Your task to perform on an android device: Open Yahoo.com Image 0: 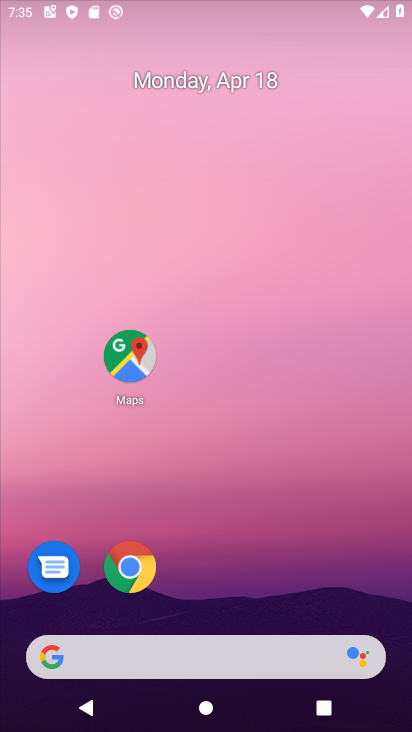
Step 0: click (256, 254)
Your task to perform on an android device: Open Yahoo.com Image 1: 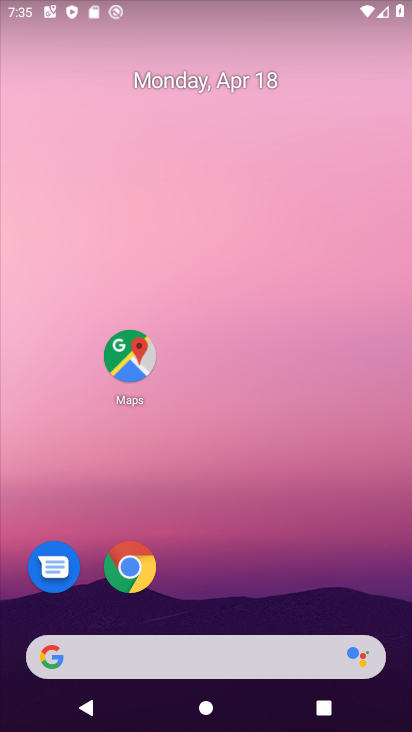
Step 1: click (139, 571)
Your task to perform on an android device: Open Yahoo.com Image 2: 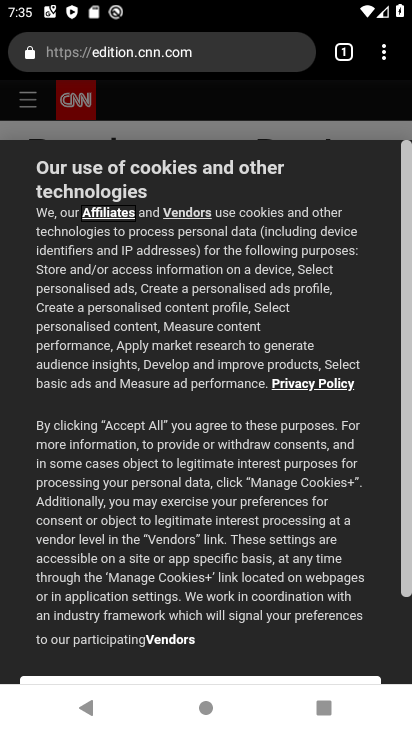
Step 2: click (343, 58)
Your task to perform on an android device: Open Yahoo.com Image 3: 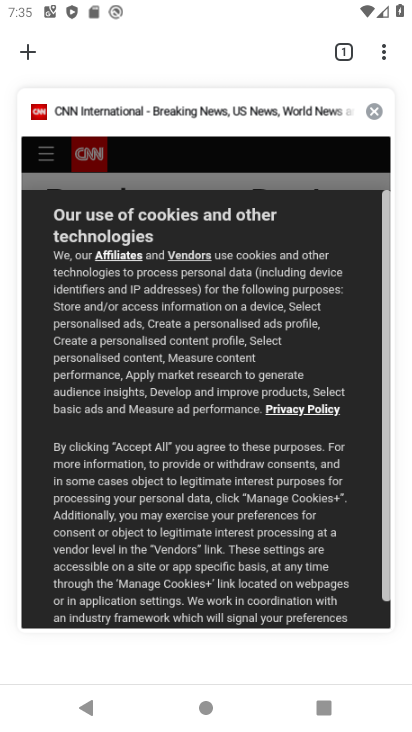
Step 3: click (31, 67)
Your task to perform on an android device: Open Yahoo.com Image 4: 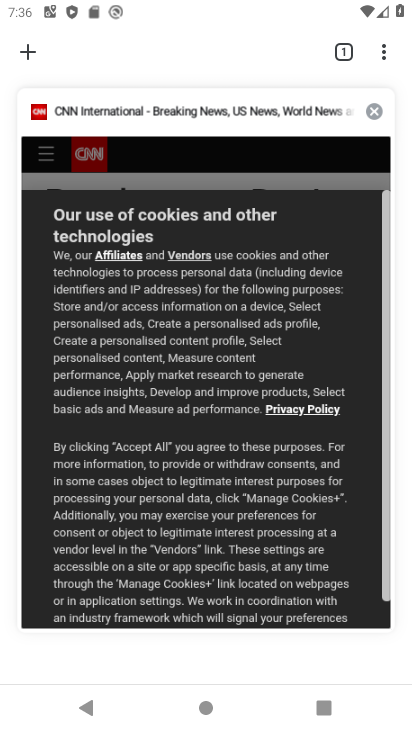
Step 4: click (30, 54)
Your task to perform on an android device: Open Yahoo.com Image 5: 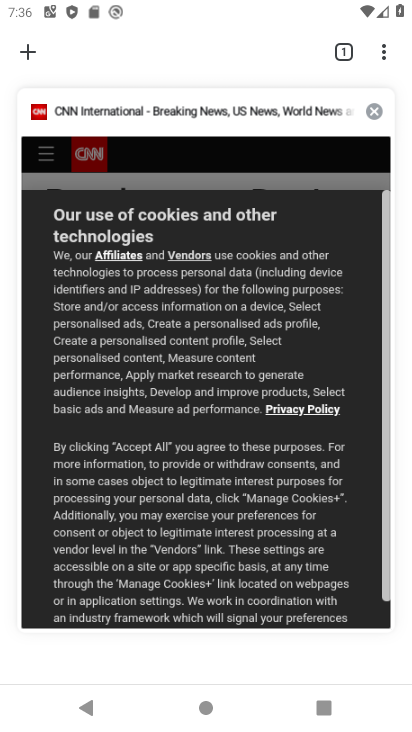
Step 5: click (30, 54)
Your task to perform on an android device: Open Yahoo.com Image 6: 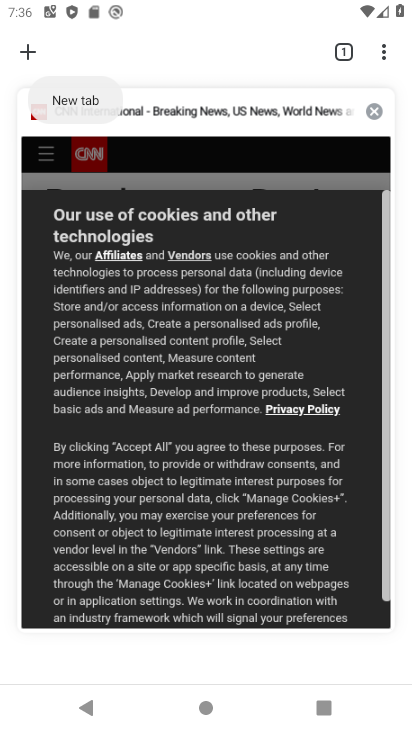
Step 6: click (31, 49)
Your task to perform on an android device: Open Yahoo.com Image 7: 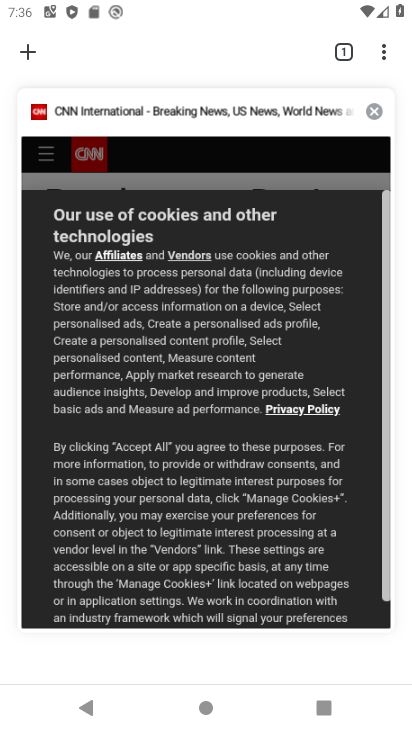
Step 7: click (387, 63)
Your task to perform on an android device: Open Yahoo.com Image 8: 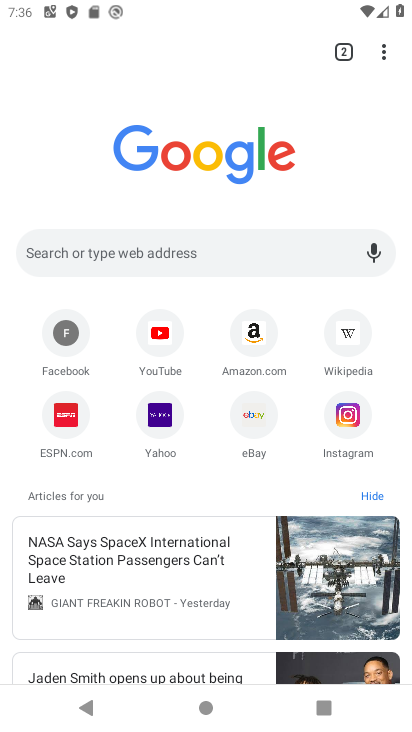
Step 8: click (161, 435)
Your task to perform on an android device: Open Yahoo.com Image 9: 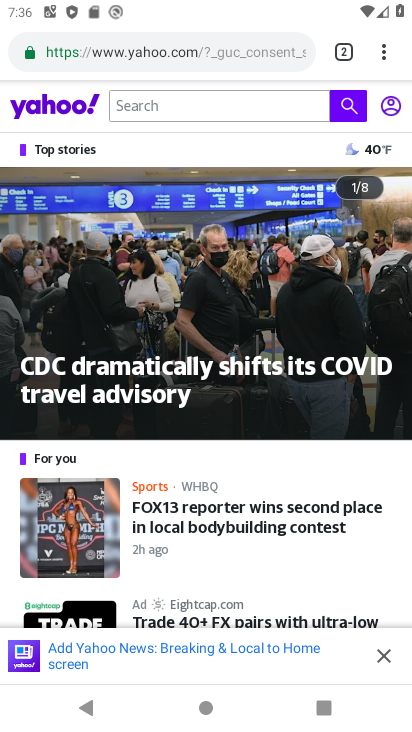
Step 9: task complete